Your task to perform on an android device: Open battery settings Image 0: 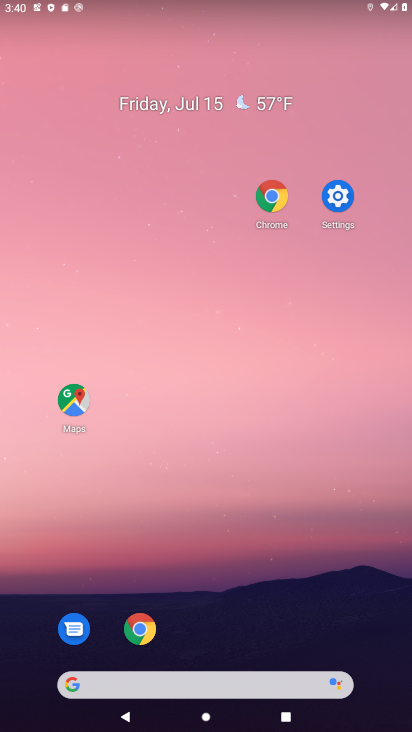
Step 0: drag from (268, 697) to (152, 149)
Your task to perform on an android device: Open battery settings Image 1: 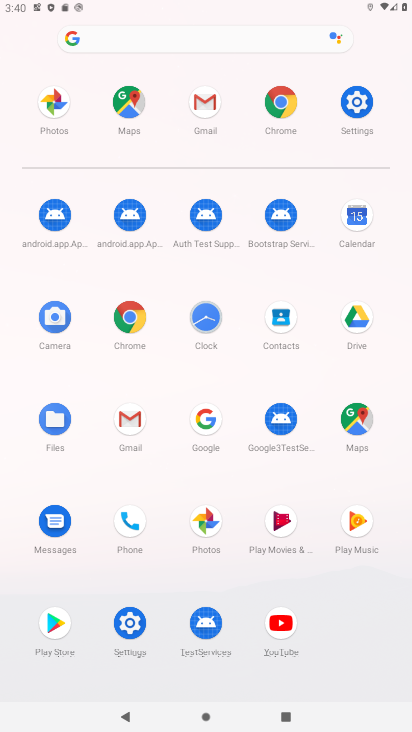
Step 1: click (354, 97)
Your task to perform on an android device: Open battery settings Image 2: 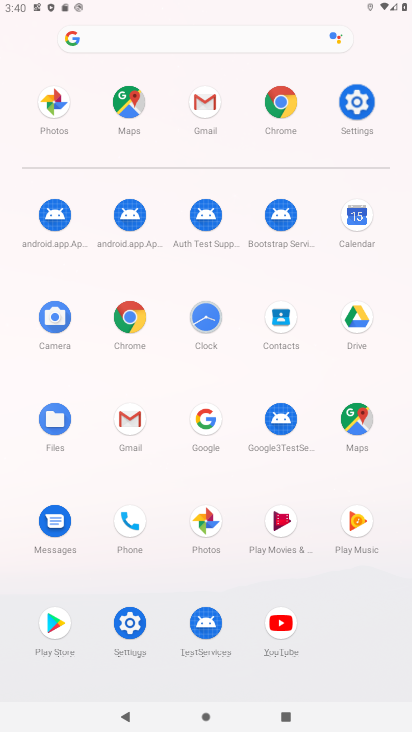
Step 2: click (356, 99)
Your task to perform on an android device: Open battery settings Image 3: 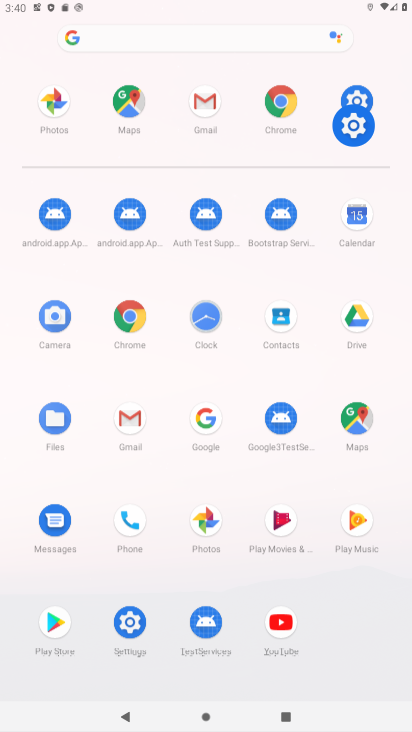
Step 3: click (356, 99)
Your task to perform on an android device: Open battery settings Image 4: 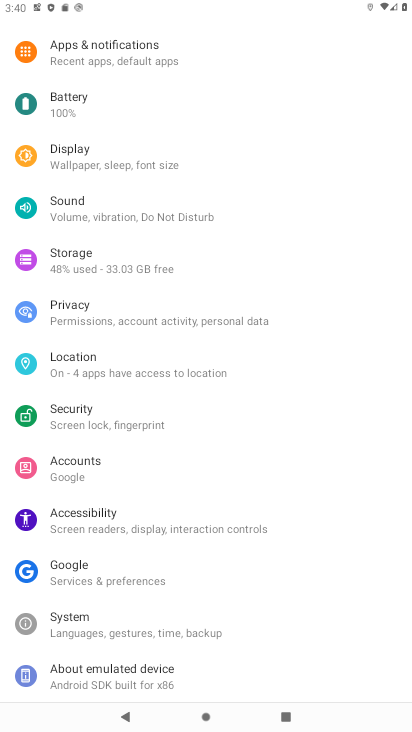
Step 4: click (356, 99)
Your task to perform on an android device: Open battery settings Image 5: 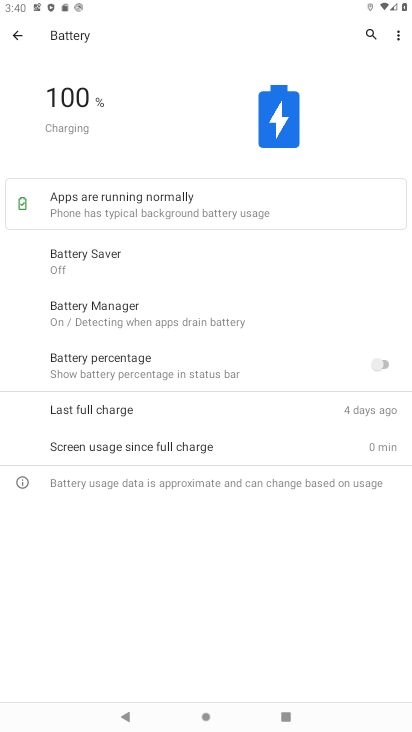
Step 5: click (21, 40)
Your task to perform on an android device: Open battery settings Image 6: 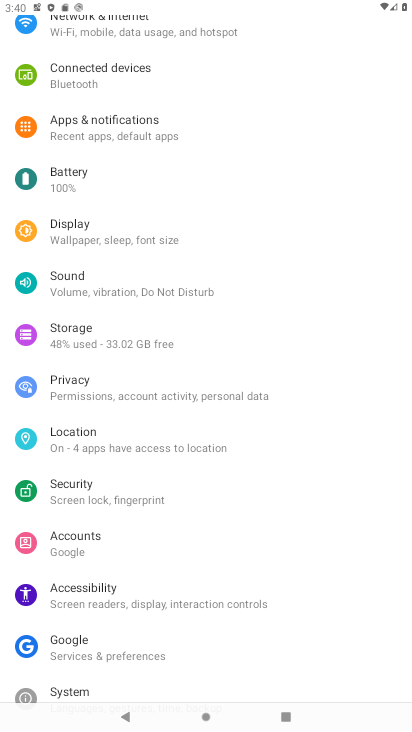
Step 6: click (56, 181)
Your task to perform on an android device: Open battery settings Image 7: 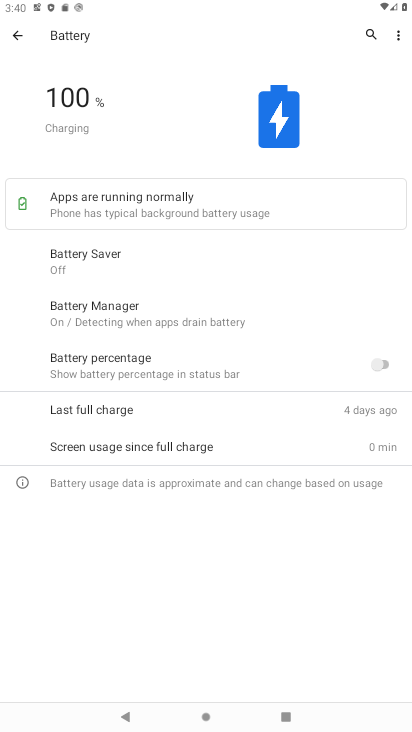
Step 7: task complete